Your task to perform on an android device: Open the stopwatch Image 0: 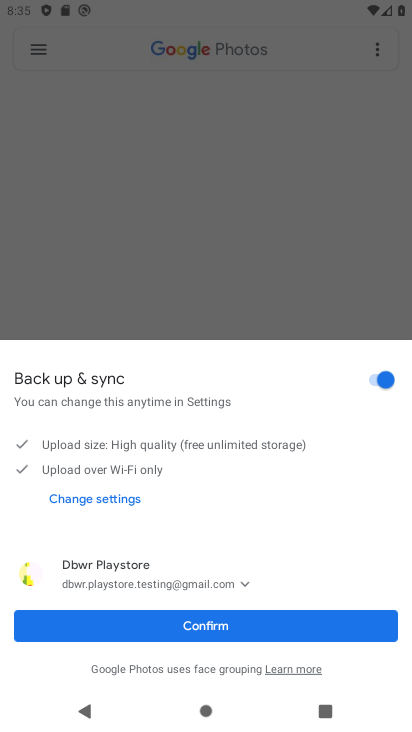
Step 0: press home button
Your task to perform on an android device: Open the stopwatch Image 1: 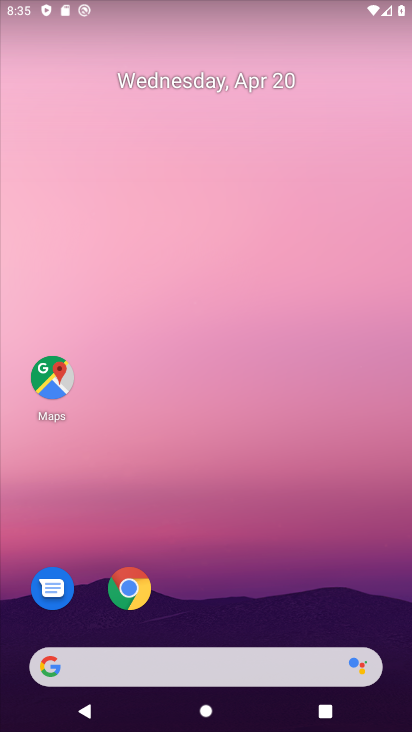
Step 1: drag from (222, 600) to (247, 142)
Your task to perform on an android device: Open the stopwatch Image 2: 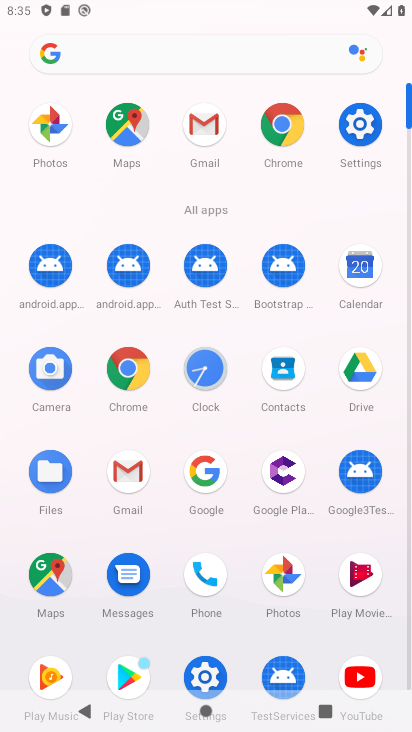
Step 2: click (210, 386)
Your task to perform on an android device: Open the stopwatch Image 3: 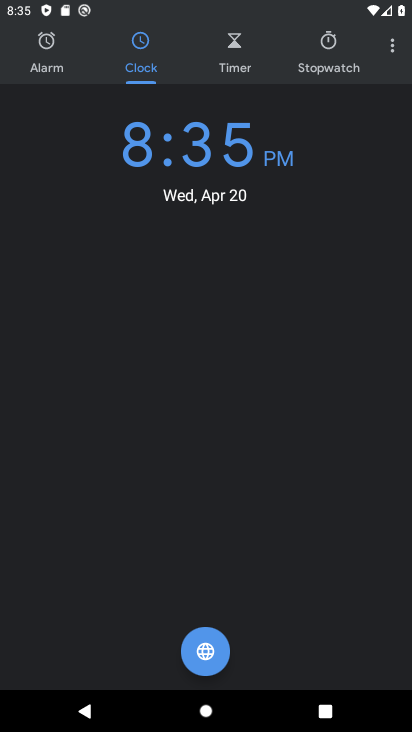
Step 3: click (314, 64)
Your task to perform on an android device: Open the stopwatch Image 4: 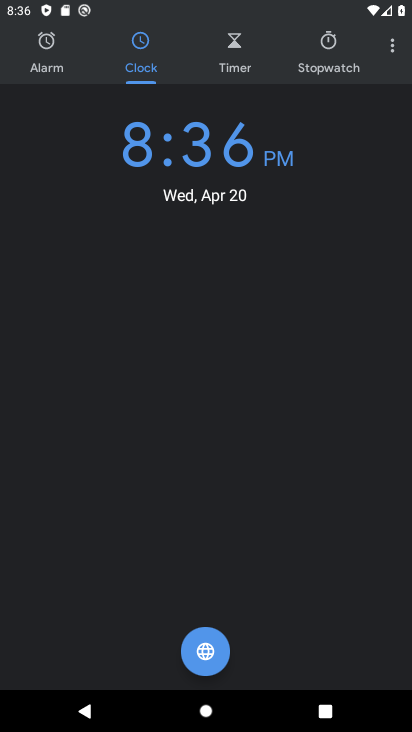
Step 4: task complete